Your task to perform on an android device: Go to notification settings Image 0: 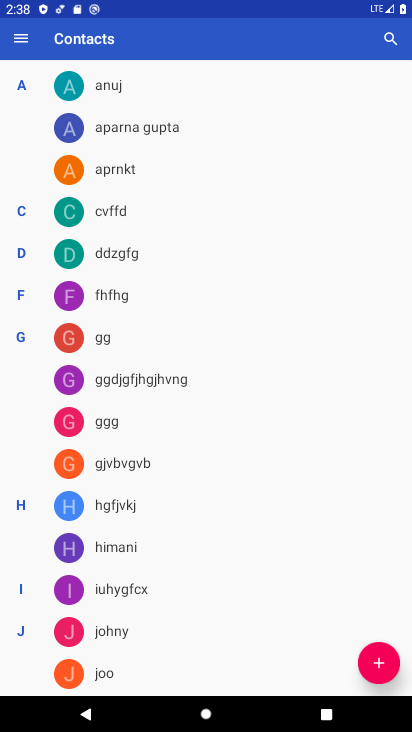
Step 0: press home button
Your task to perform on an android device: Go to notification settings Image 1: 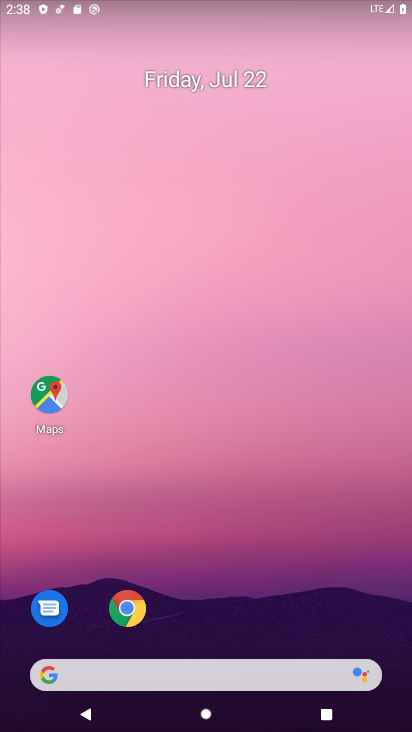
Step 1: drag from (341, 608) to (204, 215)
Your task to perform on an android device: Go to notification settings Image 2: 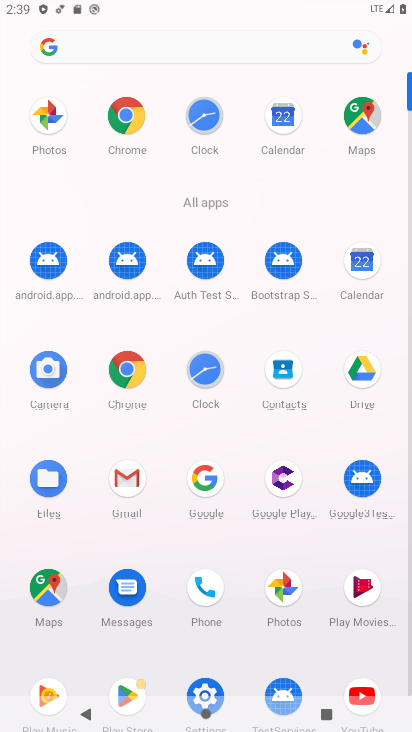
Step 2: click (204, 686)
Your task to perform on an android device: Go to notification settings Image 3: 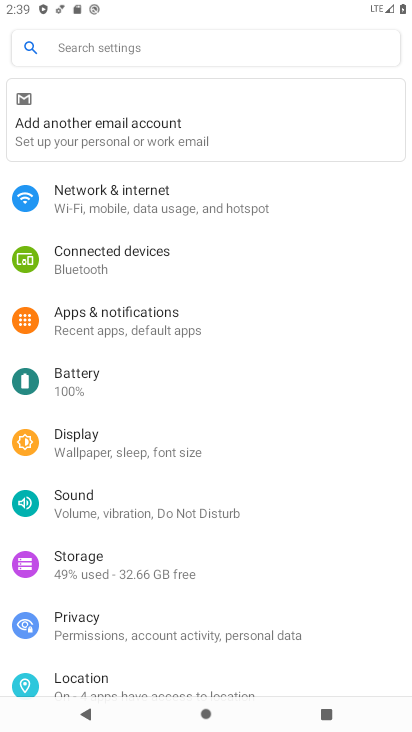
Step 3: click (122, 327)
Your task to perform on an android device: Go to notification settings Image 4: 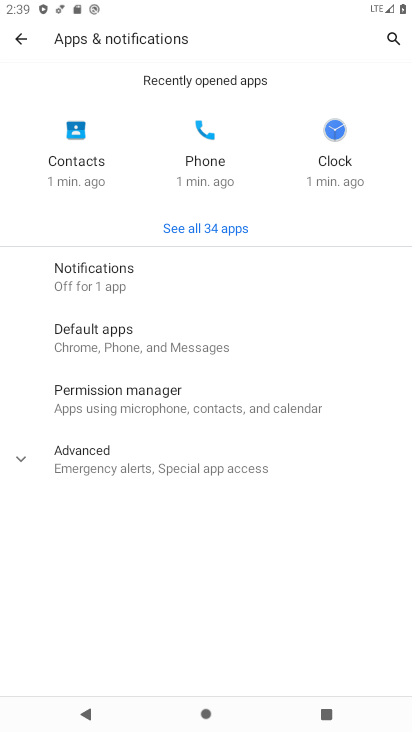
Step 4: click (102, 269)
Your task to perform on an android device: Go to notification settings Image 5: 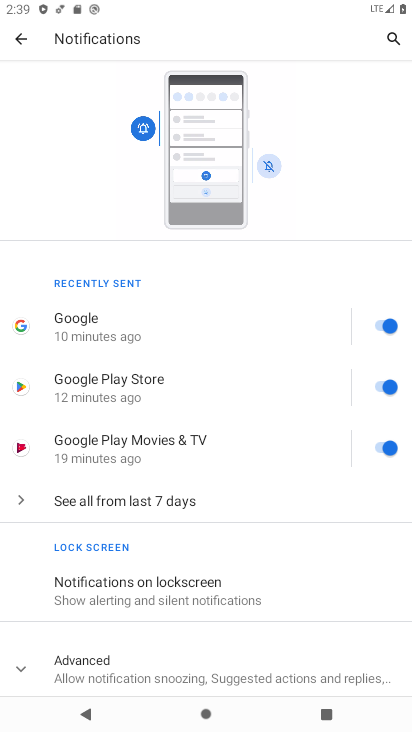
Step 5: task complete